Your task to perform on an android device: Open Google Chrome and click the shortcut for Amazon.com Image 0: 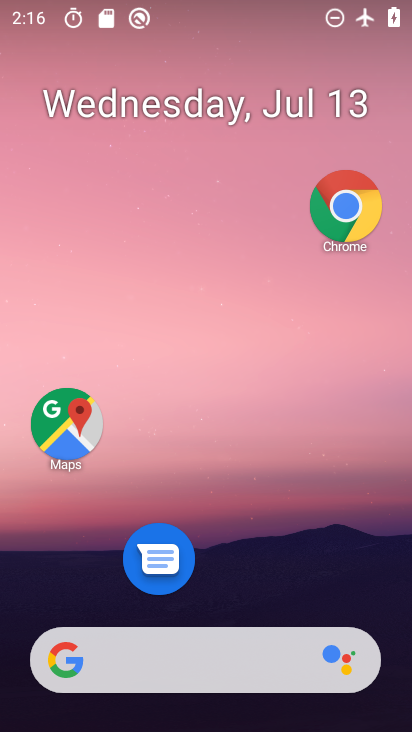
Step 0: drag from (275, 544) to (325, 206)
Your task to perform on an android device: Open Google Chrome and click the shortcut for Amazon.com Image 1: 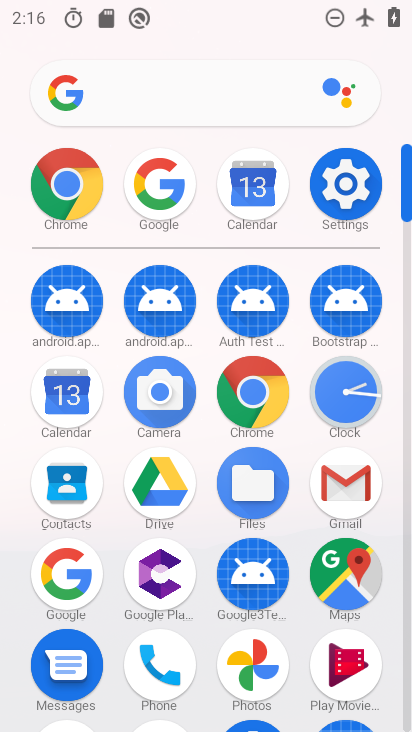
Step 1: drag from (198, 533) to (222, 317)
Your task to perform on an android device: Open Google Chrome and click the shortcut for Amazon.com Image 2: 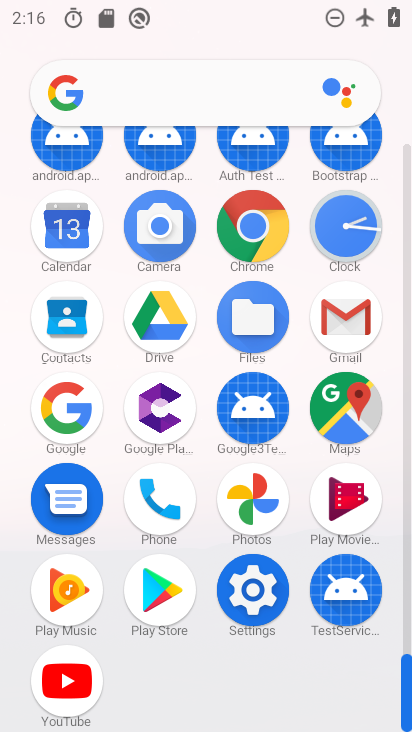
Step 2: click (257, 231)
Your task to perform on an android device: Open Google Chrome and click the shortcut for Amazon.com Image 3: 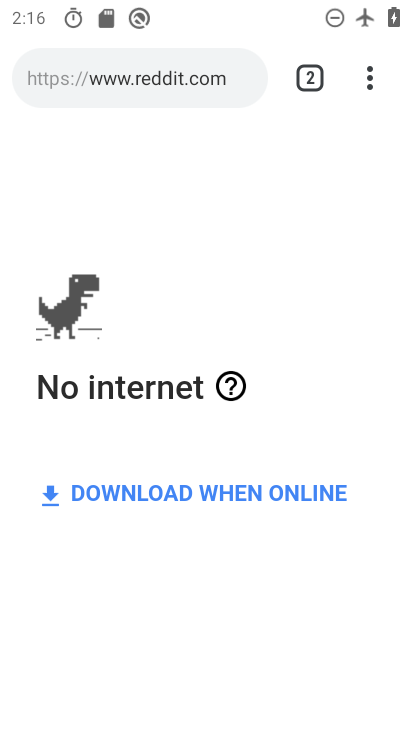
Step 3: drag from (298, 90) to (310, 231)
Your task to perform on an android device: Open Google Chrome and click the shortcut for Amazon.com Image 4: 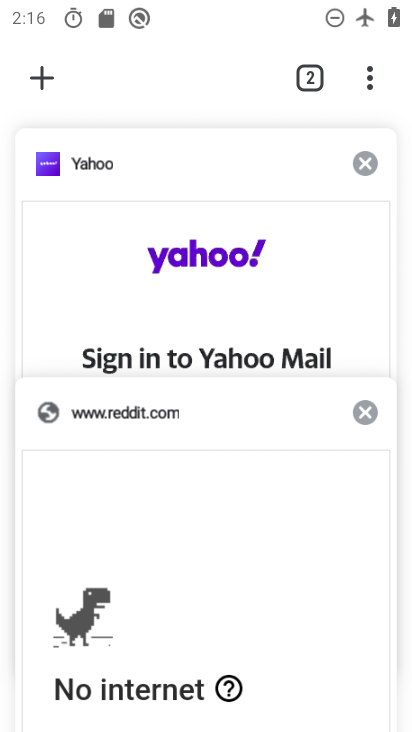
Step 4: click (50, 86)
Your task to perform on an android device: Open Google Chrome and click the shortcut for Amazon.com Image 5: 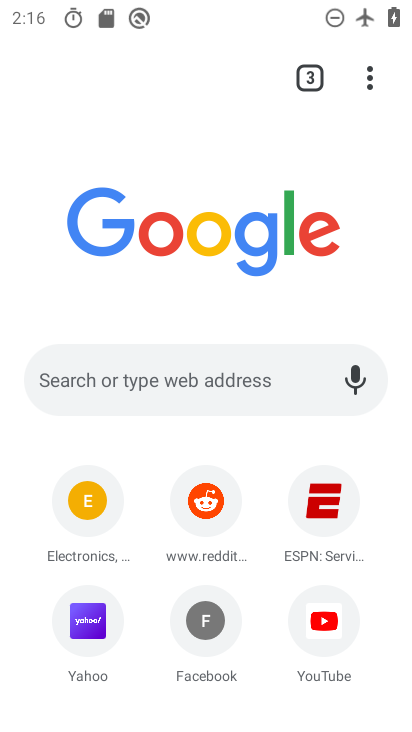
Step 5: task complete